Your task to perform on an android device: Open Wikipedia Image 0: 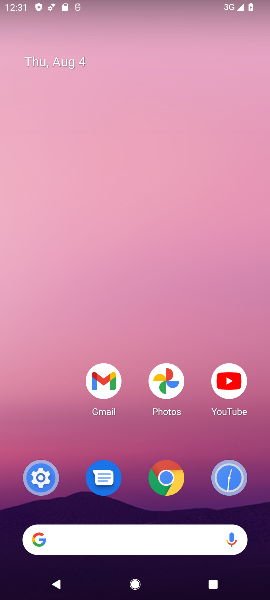
Step 0: click (160, 471)
Your task to perform on an android device: Open Wikipedia Image 1: 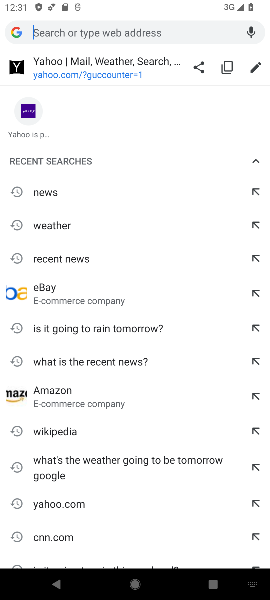
Step 1: type "Wikipedia"
Your task to perform on an android device: Open Wikipedia Image 2: 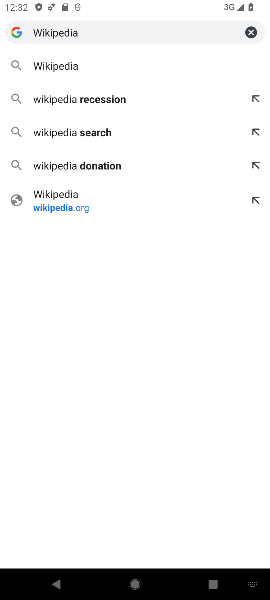
Step 2: click (49, 64)
Your task to perform on an android device: Open Wikipedia Image 3: 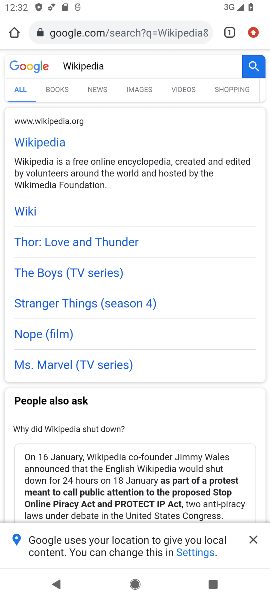
Step 3: click (31, 137)
Your task to perform on an android device: Open Wikipedia Image 4: 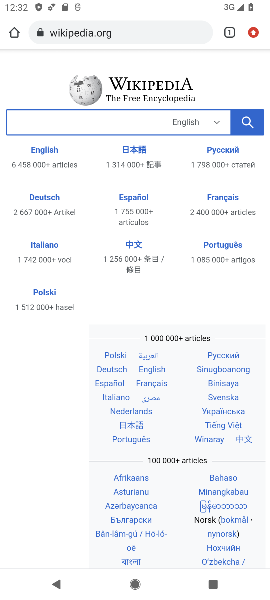
Step 4: task complete